Your task to perform on an android device: See recent photos Image 0: 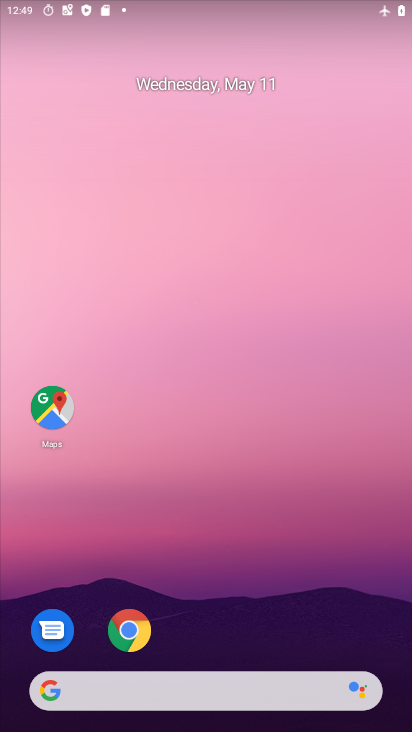
Step 0: drag from (227, 539) to (240, 129)
Your task to perform on an android device: See recent photos Image 1: 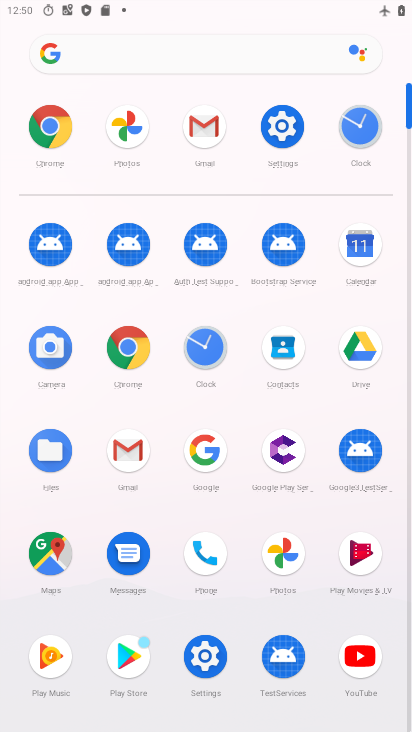
Step 1: click (276, 551)
Your task to perform on an android device: See recent photos Image 2: 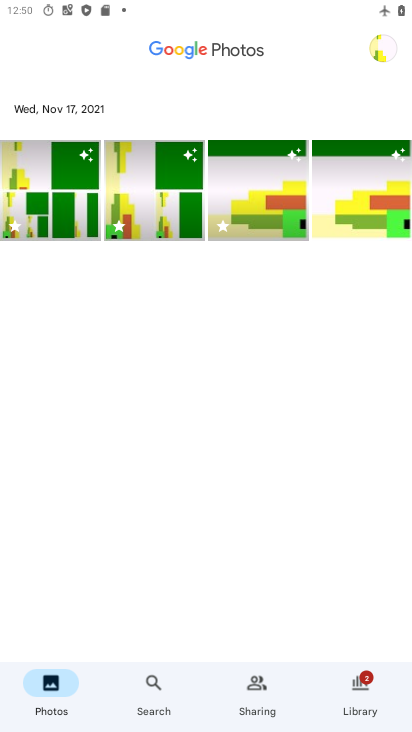
Step 2: task complete